Your task to perform on an android device: Open Youtube and go to "Your channel" Image 0: 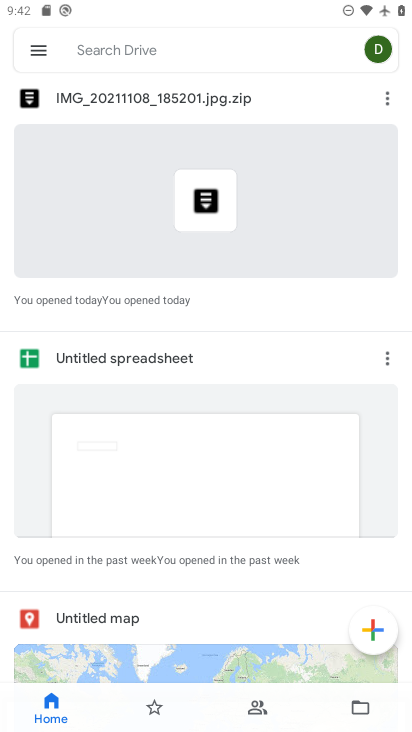
Step 0: press home button
Your task to perform on an android device: Open Youtube and go to "Your channel" Image 1: 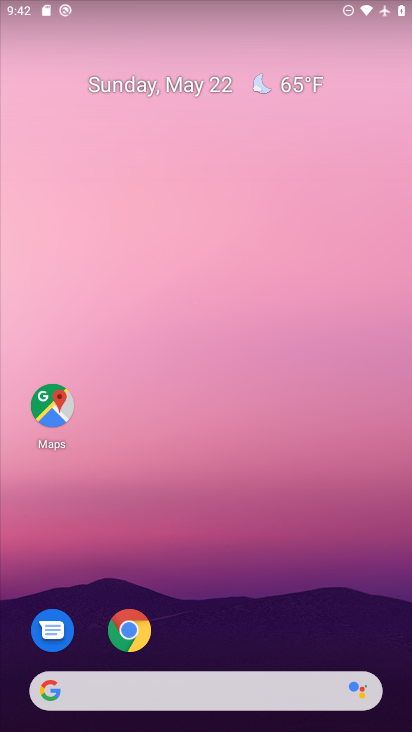
Step 1: drag from (204, 688) to (339, 231)
Your task to perform on an android device: Open Youtube and go to "Your channel" Image 2: 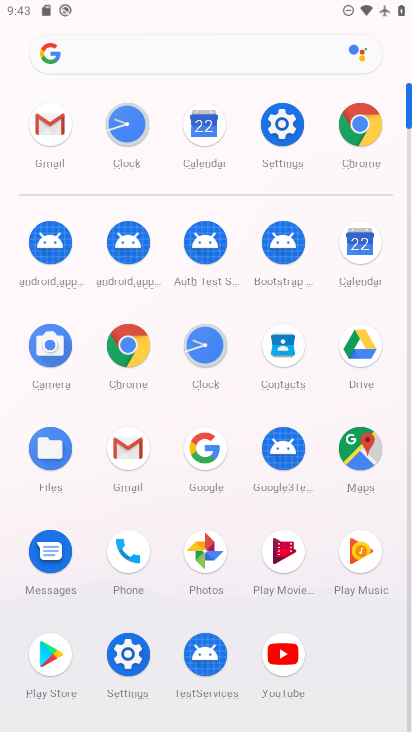
Step 2: click (284, 651)
Your task to perform on an android device: Open Youtube and go to "Your channel" Image 3: 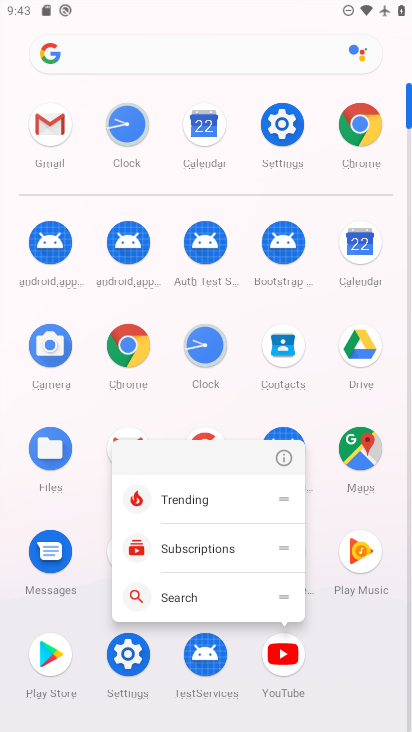
Step 3: click (279, 655)
Your task to perform on an android device: Open Youtube and go to "Your channel" Image 4: 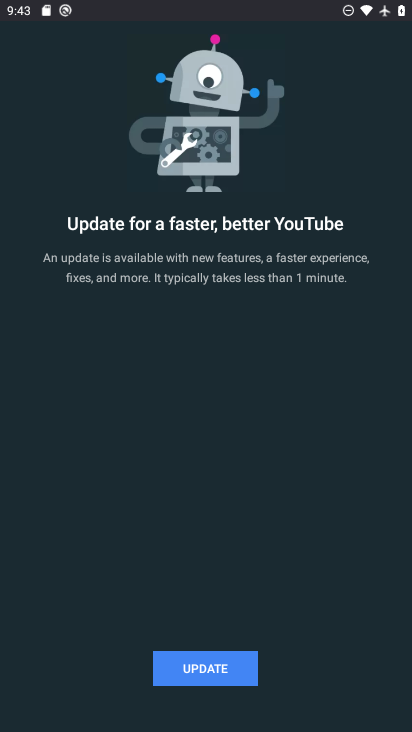
Step 4: click (202, 662)
Your task to perform on an android device: Open Youtube and go to "Your channel" Image 5: 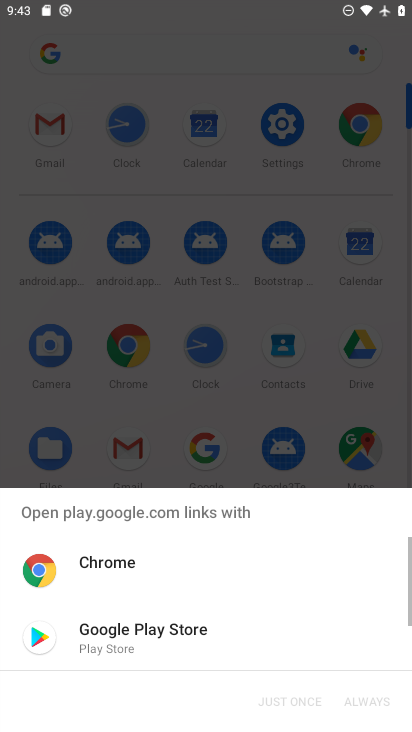
Step 5: click (144, 615)
Your task to perform on an android device: Open Youtube and go to "Your channel" Image 6: 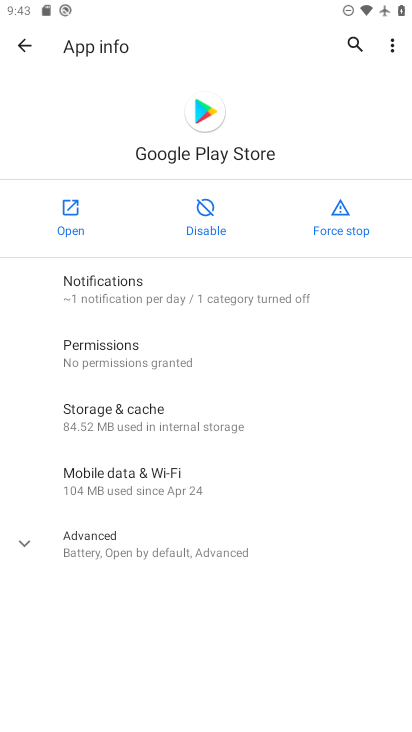
Step 6: click (24, 47)
Your task to perform on an android device: Open Youtube and go to "Your channel" Image 7: 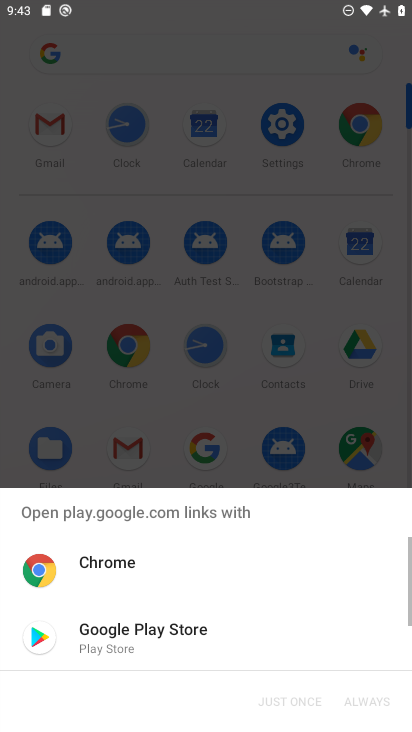
Step 7: click (147, 635)
Your task to perform on an android device: Open Youtube and go to "Your channel" Image 8: 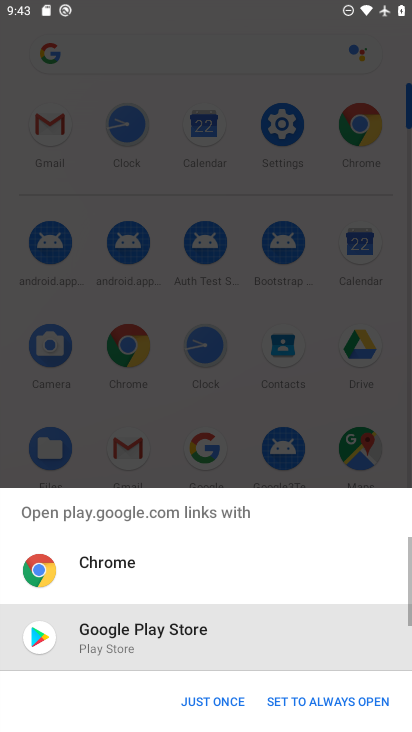
Step 8: click (199, 709)
Your task to perform on an android device: Open Youtube and go to "Your channel" Image 9: 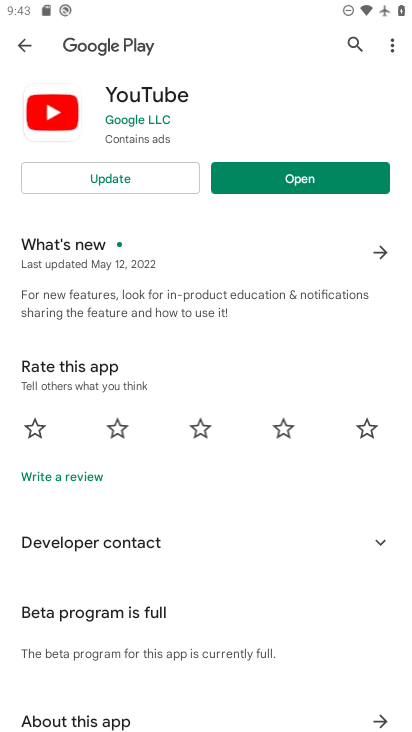
Step 9: click (166, 175)
Your task to perform on an android device: Open Youtube and go to "Your channel" Image 10: 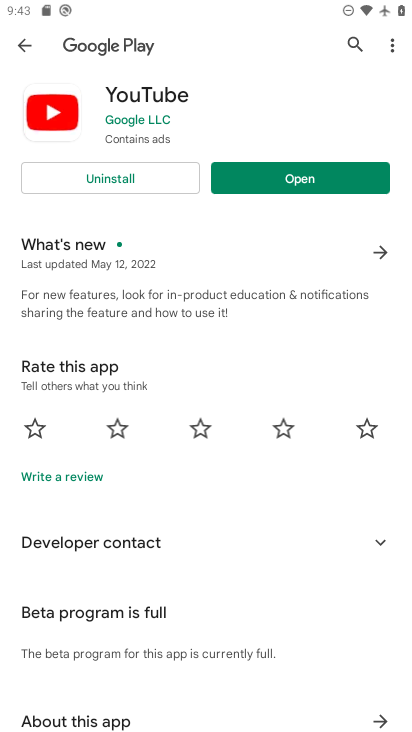
Step 10: click (290, 177)
Your task to perform on an android device: Open Youtube and go to "Your channel" Image 11: 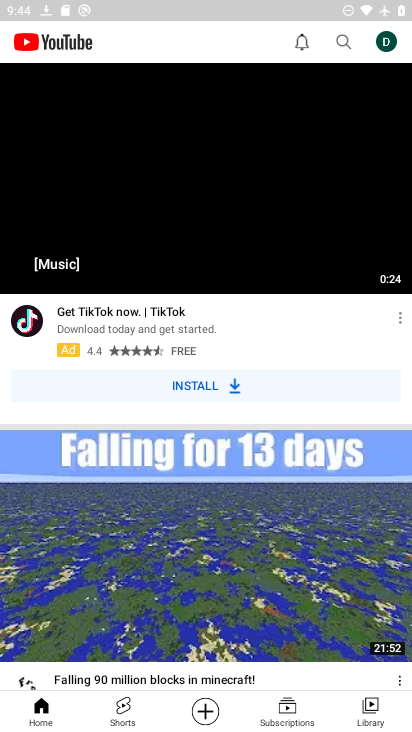
Step 11: click (389, 37)
Your task to perform on an android device: Open Youtube and go to "Your channel" Image 12: 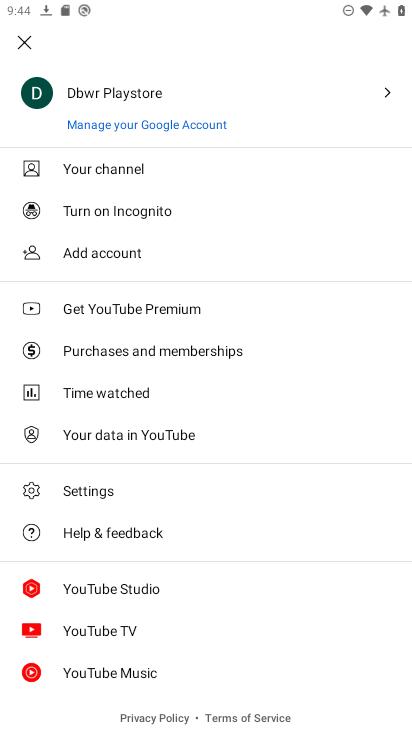
Step 12: click (140, 183)
Your task to perform on an android device: Open Youtube and go to "Your channel" Image 13: 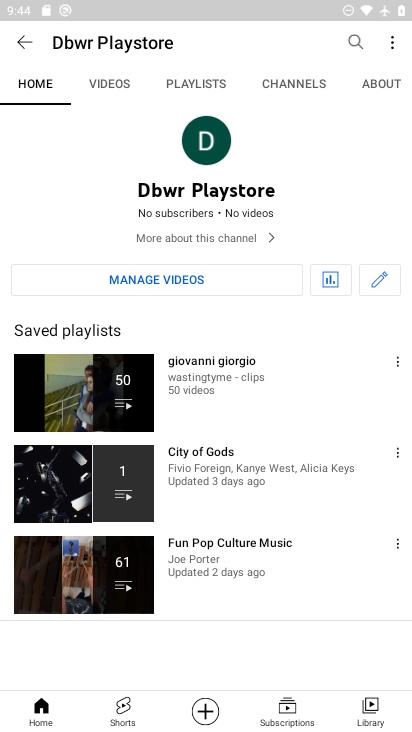
Step 13: task complete